Your task to perform on an android device: Open network settings Image 0: 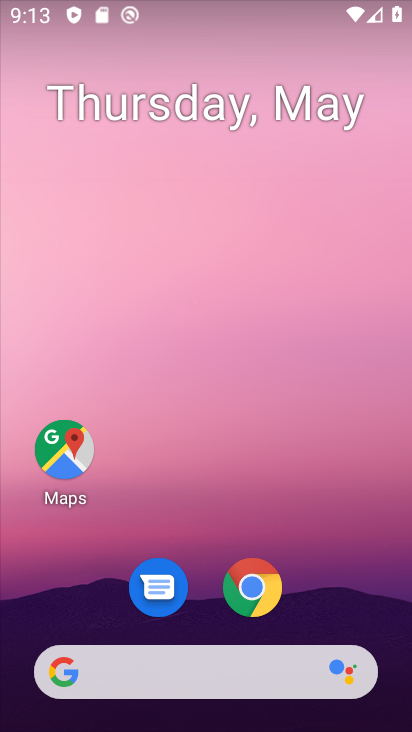
Step 0: drag from (366, 632) to (332, 15)
Your task to perform on an android device: Open network settings Image 1: 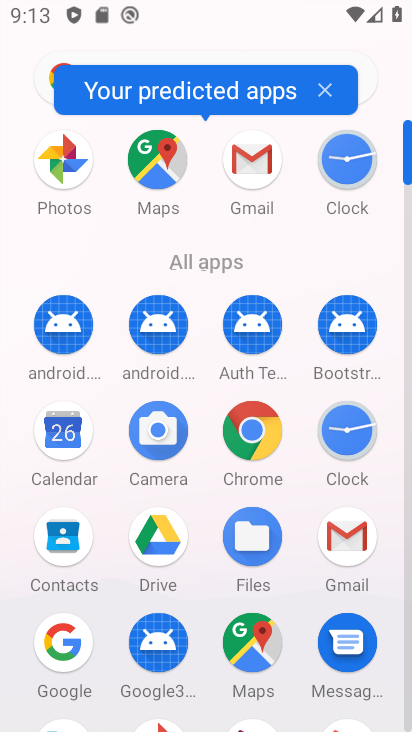
Step 1: click (409, 486)
Your task to perform on an android device: Open network settings Image 2: 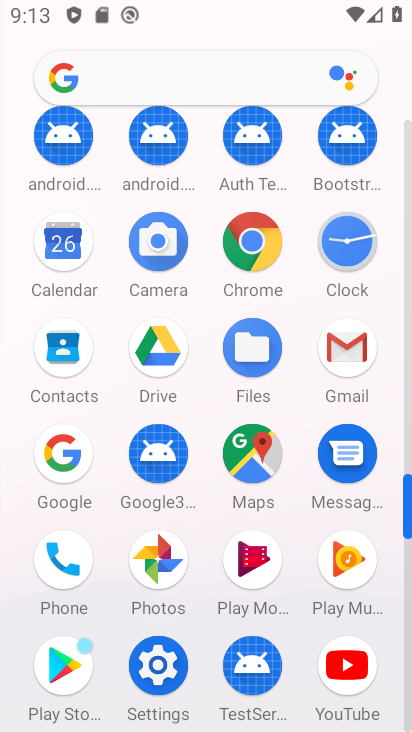
Step 2: click (149, 666)
Your task to perform on an android device: Open network settings Image 3: 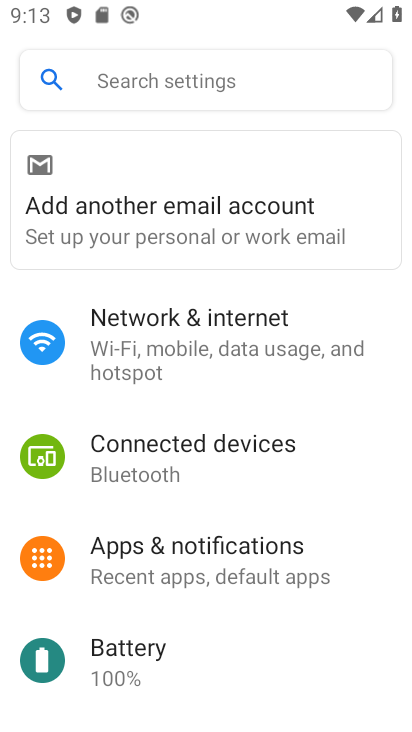
Step 3: click (146, 349)
Your task to perform on an android device: Open network settings Image 4: 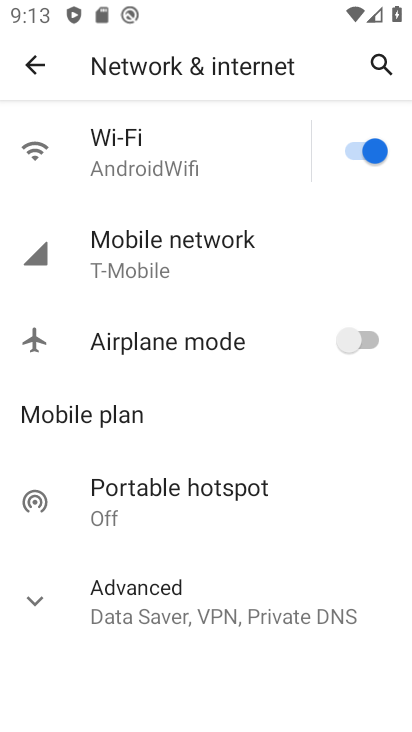
Step 4: click (143, 246)
Your task to perform on an android device: Open network settings Image 5: 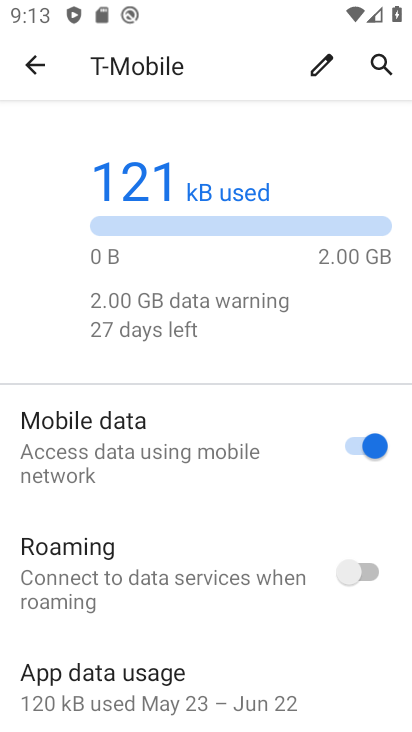
Step 5: drag from (159, 516) to (155, 90)
Your task to perform on an android device: Open network settings Image 6: 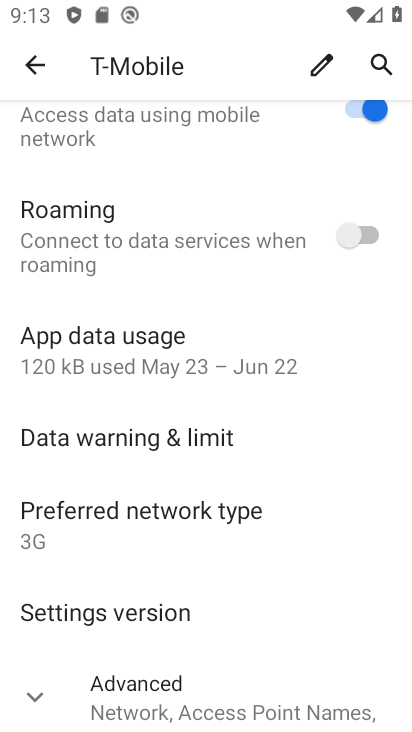
Step 6: drag from (134, 500) to (135, 149)
Your task to perform on an android device: Open network settings Image 7: 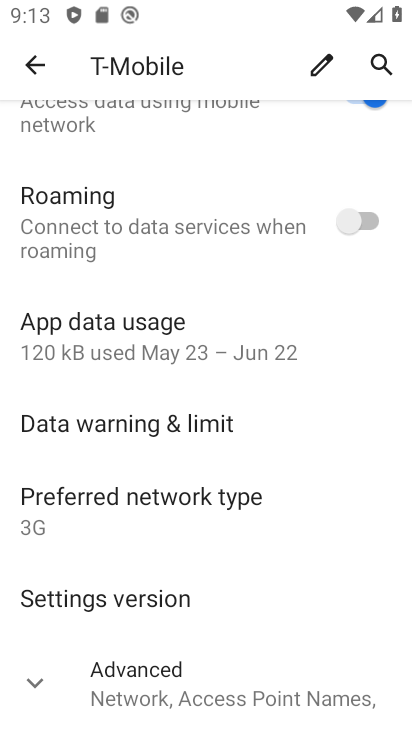
Step 7: click (35, 688)
Your task to perform on an android device: Open network settings Image 8: 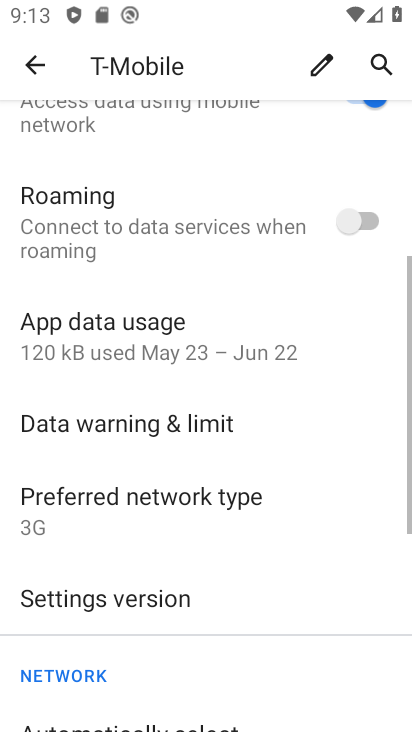
Step 8: task complete